Your task to perform on an android device: Go to Maps Image 0: 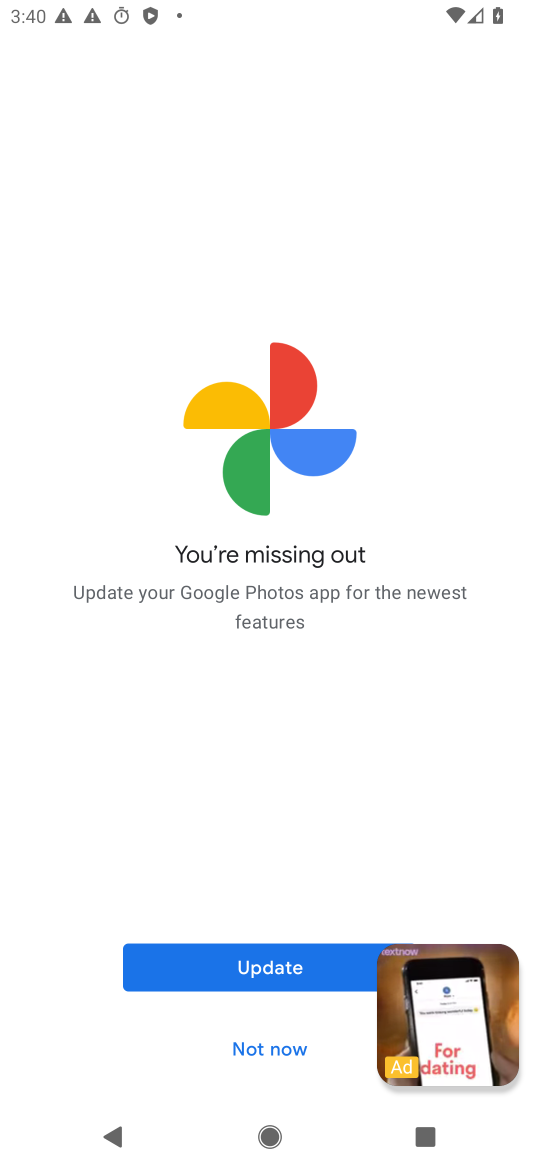
Step 0: press home button
Your task to perform on an android device: Go to Maps Image 1: 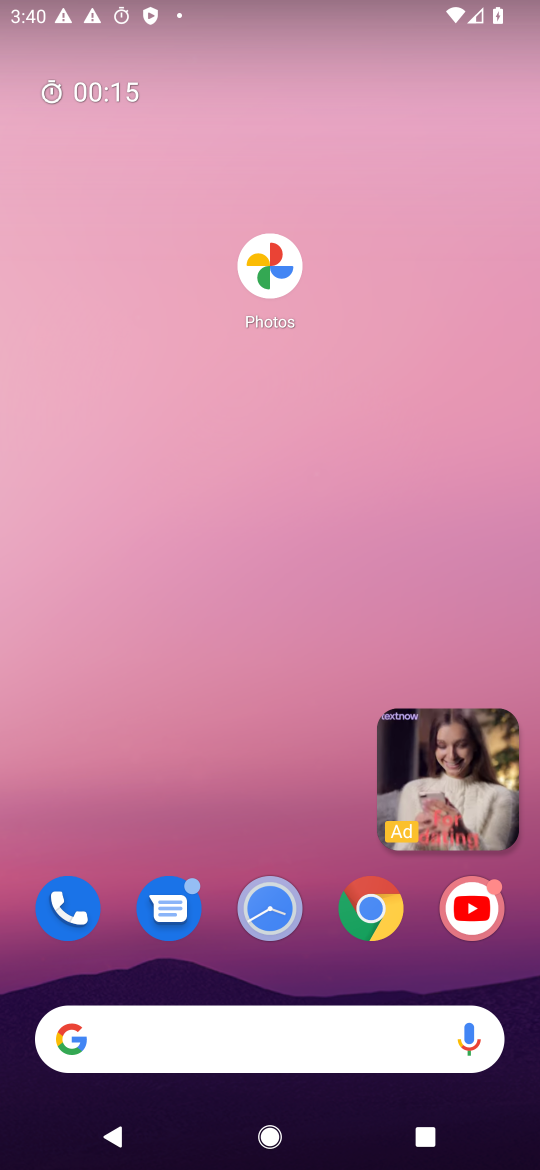
Step 1: click (485, 761)
Your task to perform on an android device: Go to Maps Image 2: 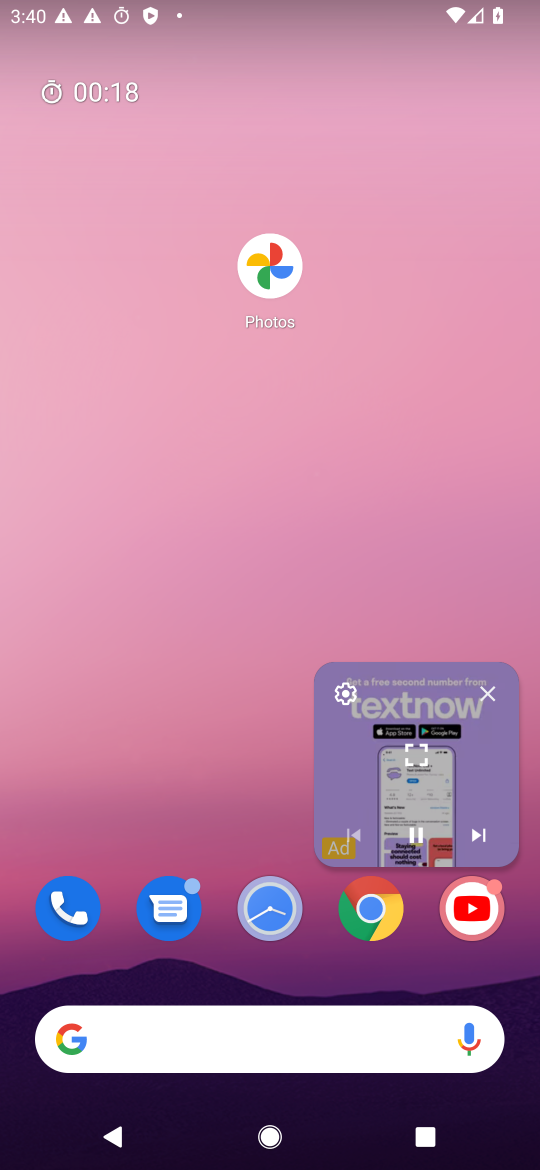
Step 2: click (486, 685)
Your task to perform on an android device: Go to Maps Image 3: 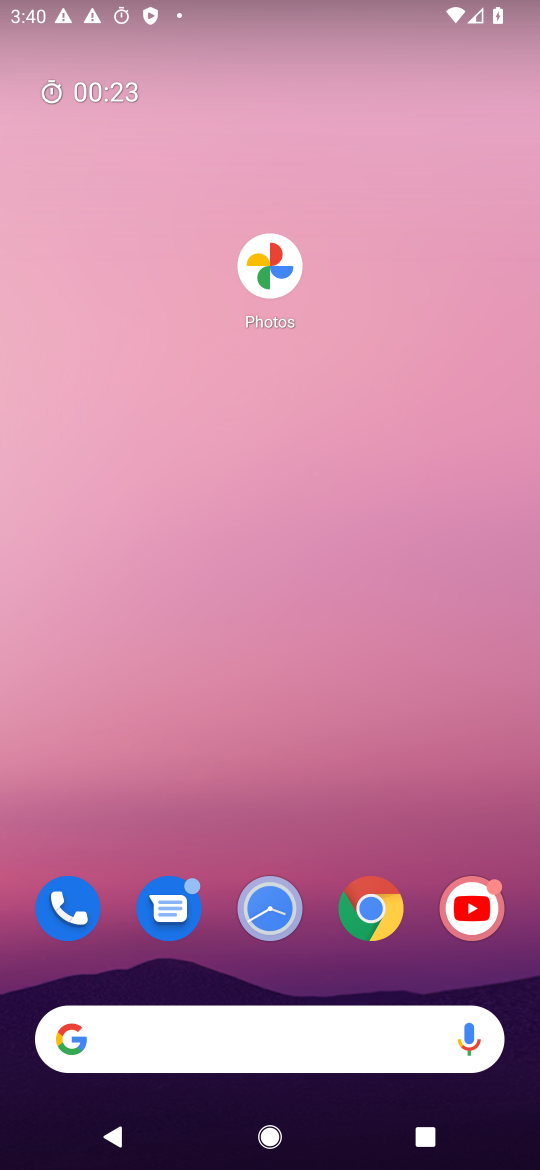
Step 3: drag from (225, 978) to (237, 53)
Your task to perform on an android device: Go to Maps Image 4: 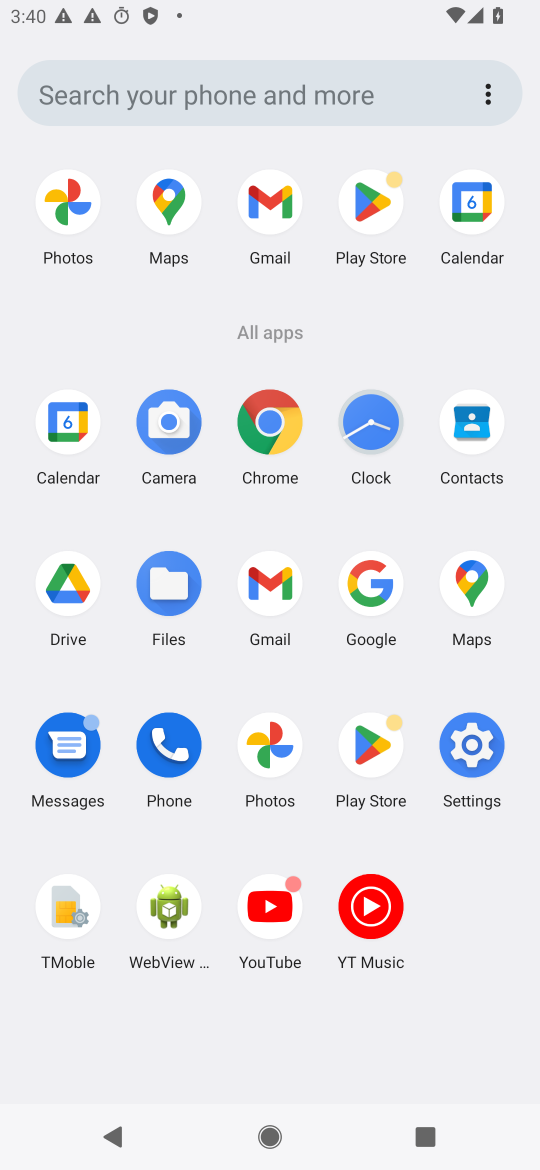
Step 4: click (494, 590)
Your task to perform on an android device: Go to Maps Image 5: 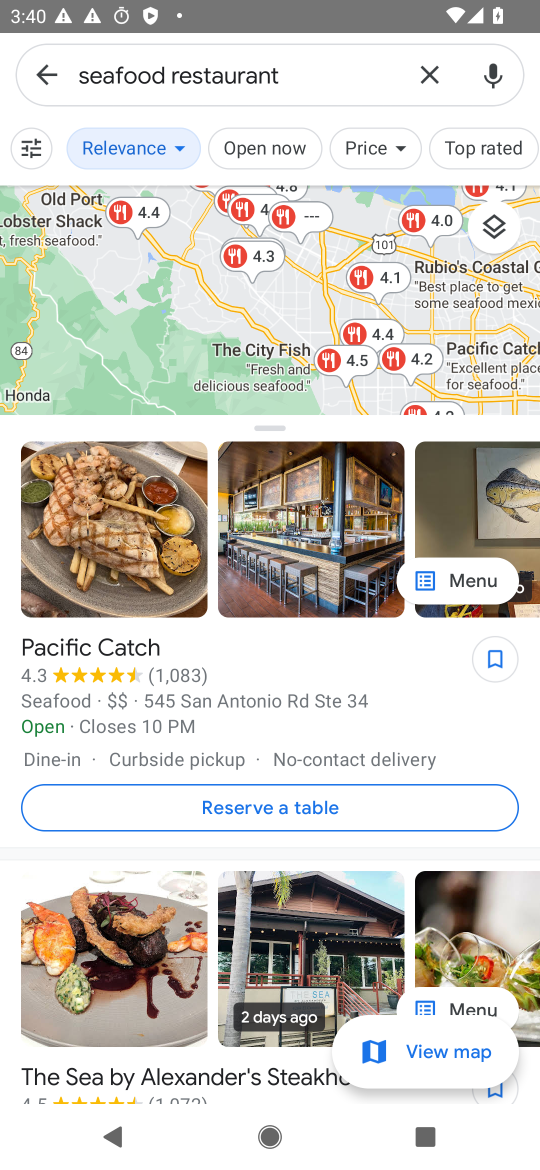
Step 5: task complete